Your task to perform on an android device: Search for Mexican restaurants on Maps Image 0: 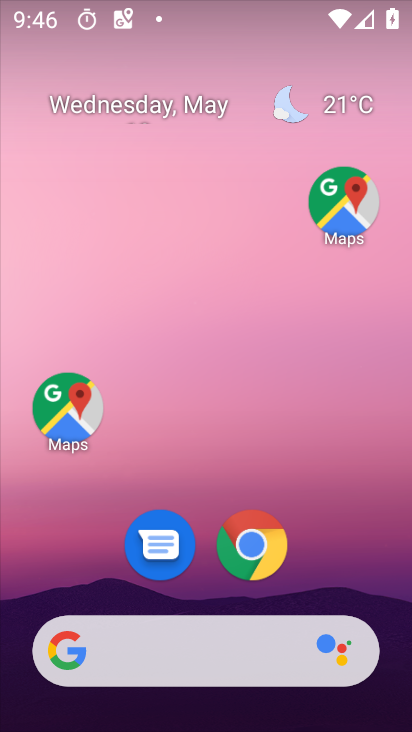
Step 0: drag from (340, 558) to (242, 129)
Your task to perform on an android device: Search for Mexican restaurants on Maps Image 1: 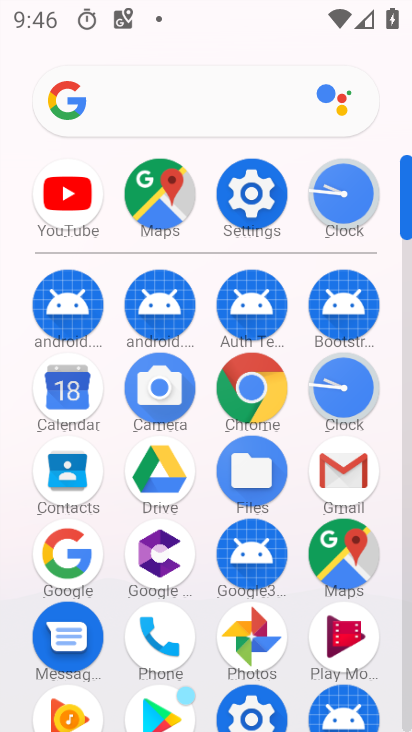
Step 1: click (152, 181)
Your task to perform on an android device: Search for Mexican restaurants on Maps Image 2: 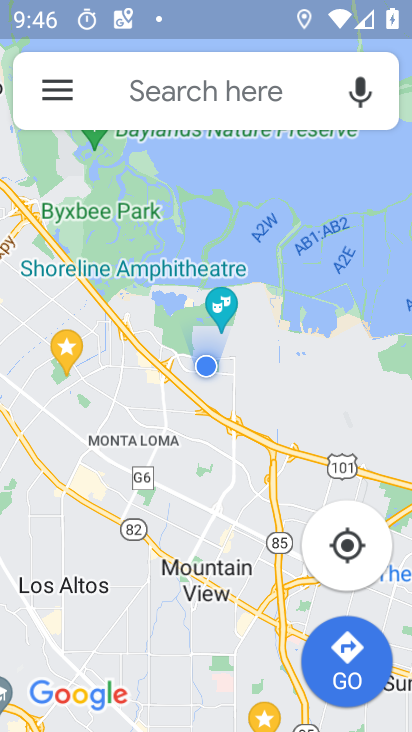
Step 2: click (178, 92)
Your task to perform on an android device: Search for Mexican restaurants on Maps Image 3: 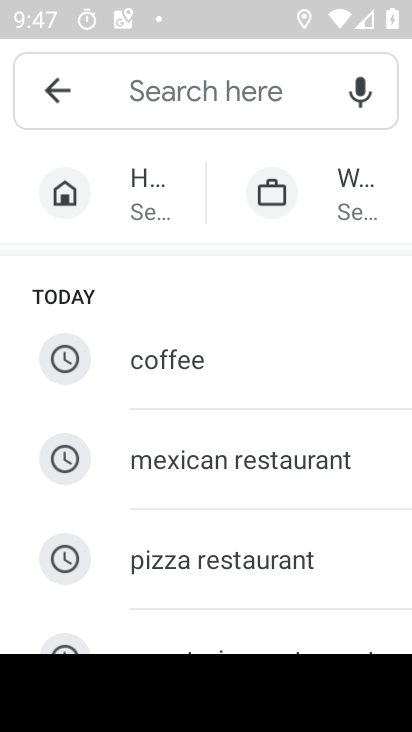
Step 3: type "mexican restaurants"
Your task to perform on an android device: Search for Mexican restaurants on Maps Image 4: 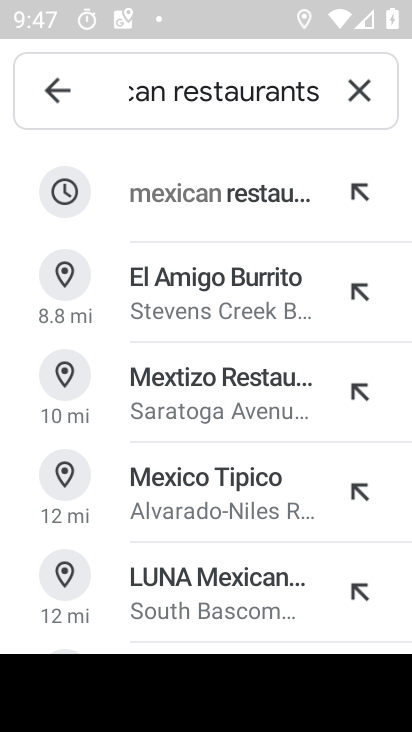
Step 4: click (219, 183)
Your task to perform on an android device: Search for Mexican restaurants on Maps Image 5: 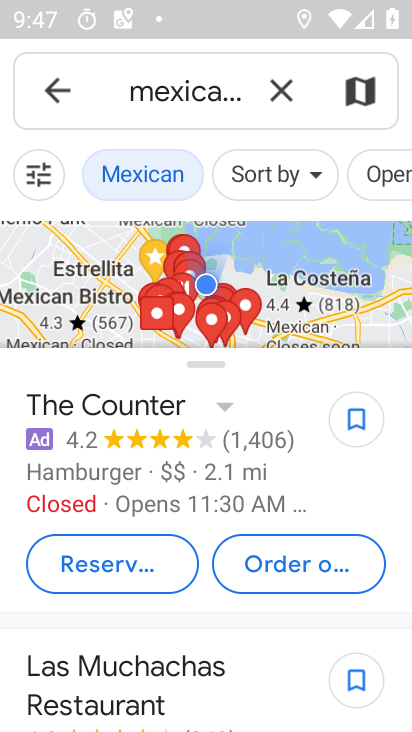
Step 5: task complete